Your task to perform on an android device: Do I have any events this weekend? Image 0: 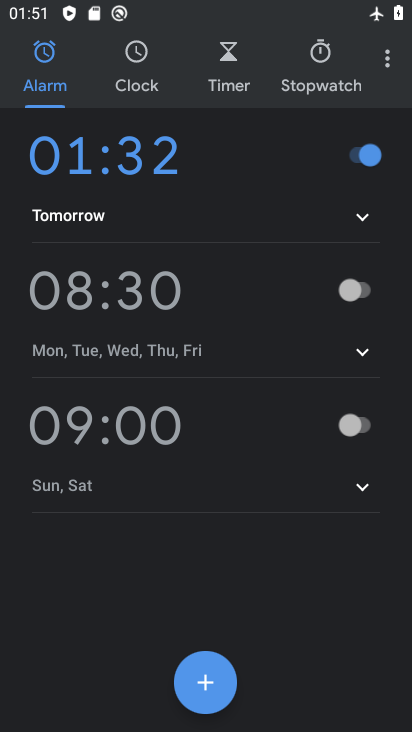
Step 0: press home button
Your task to perform on an android device: Do I have any events this weekend? Image 1: 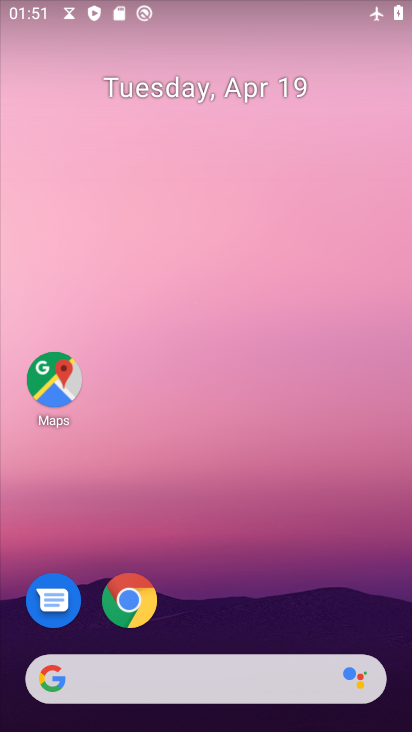
Step 1: drag from (211, 637) to (189, 90)
Your task to perform on an android device: Do I have any events this weekend? Image 2: 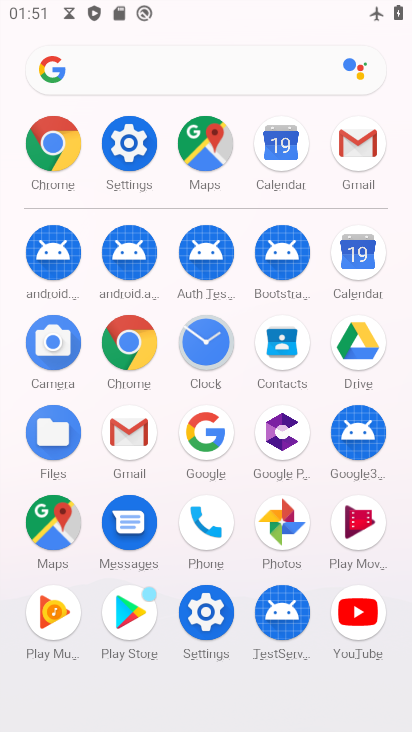
Step 2: click (372, 269)
Your task to perform on an android device: Do I have any events this weekend? Image 3: 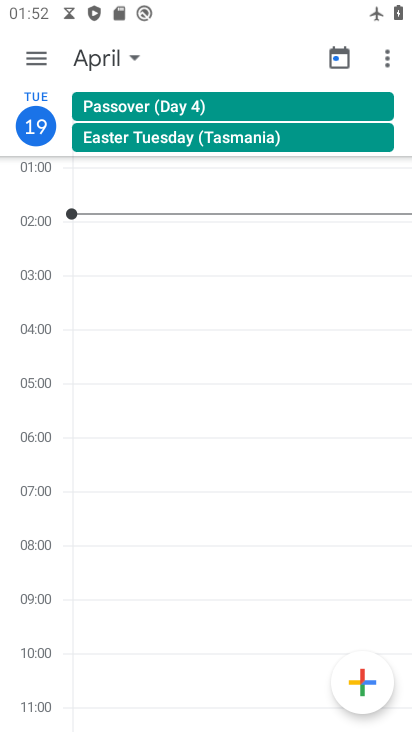
Step 3: click (43, 74)
Your task to perform on an android device: Do I have any events this weekend? Image 4: 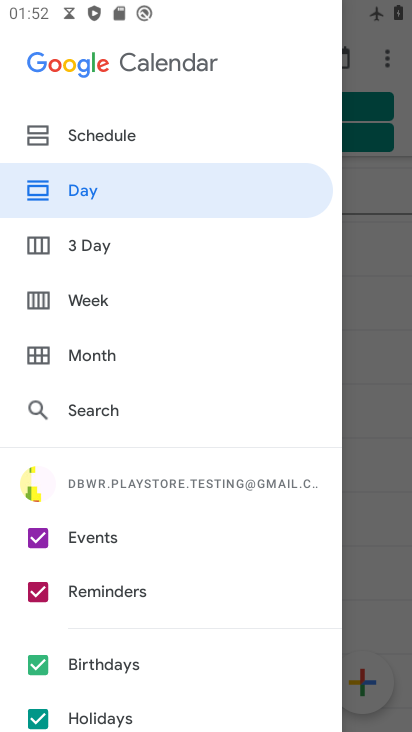
Step 4: click (100, 286)
Your task to perform on an android device: Do I have any events this weekend? Image 5: 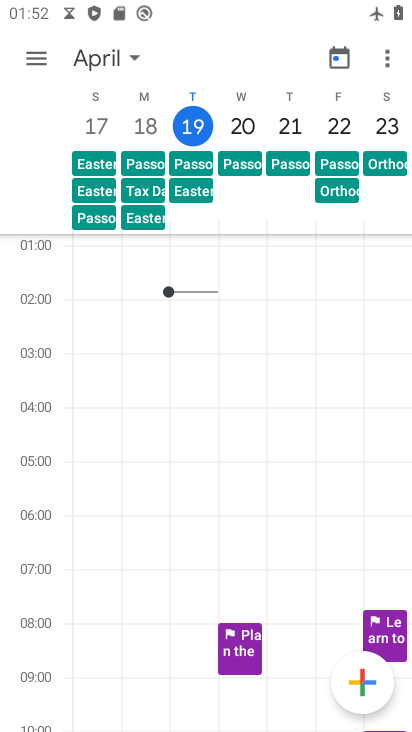
Step 5: task complete